Your task to perform on an android device: search for starred emails in the gmail app Image 0: 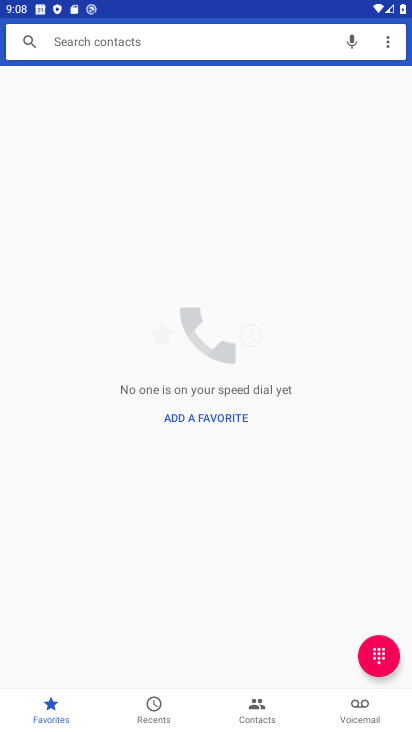
Step 0: drag from (252, 535) to (268, 260)
Your task to perform on an android device: search for starred emails in the gmail app Image 1: 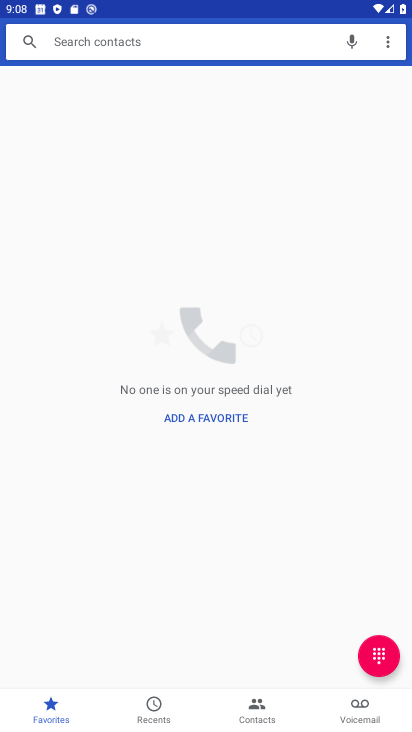
Step 1: press home button
Your task to perform on an android device: search for starred emails in the gmail app Image 2: 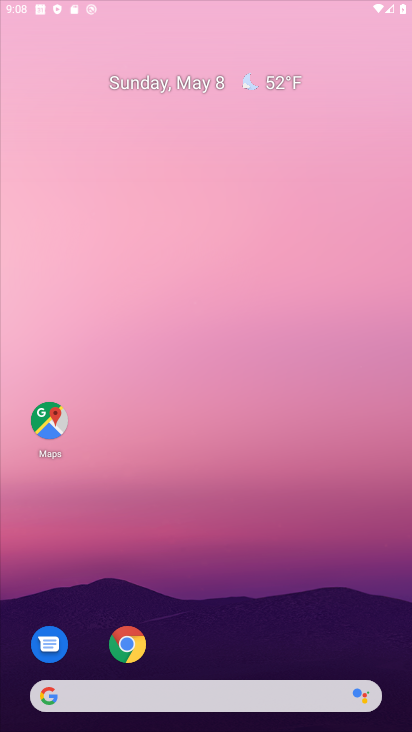
Step 2: drag from (192, 636) to (288, 221)
Your task to perform on an android device: search for starred emails in the gmail app Image 3: 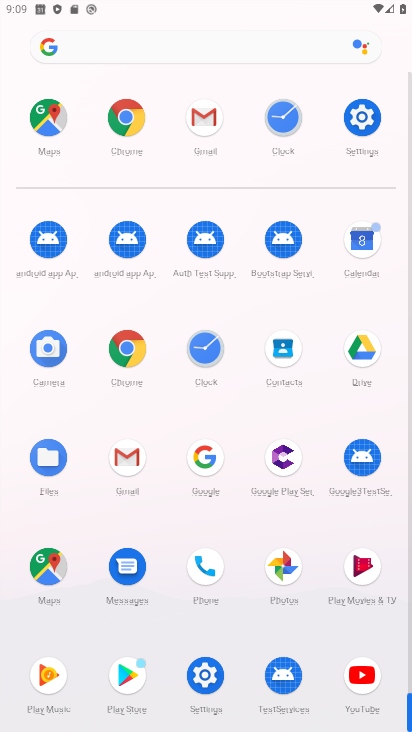
Step 3: click (126, 459)
Your task to perform on an android device: search for starred emails in the gmail app Image 4: 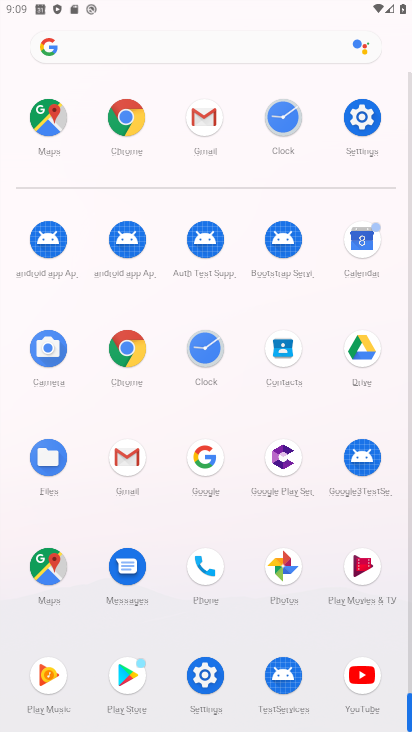
Step 4: click (126, 459)
Your task to perform on an android device: search for starred emails in the gmail app Image 5: 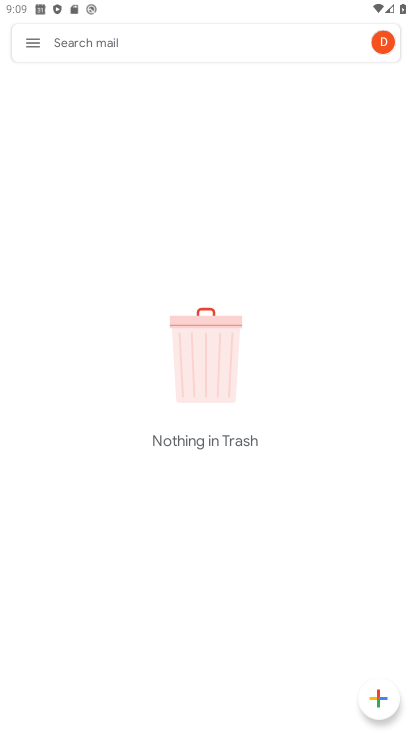
Step 5: drag from (185, 443) to (232, 105)
Your task to perform on an android device: search for starred emails in the gmail app Image 6: 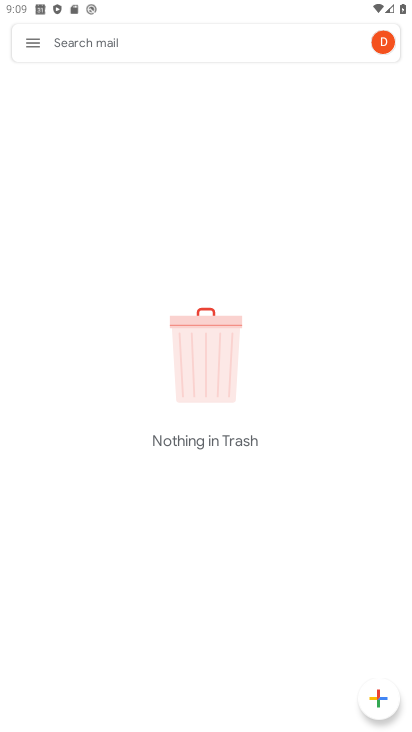
Step 6: click (23, 42)
Your task to perform on an android device: search for starred emails in the gmail app Image 7: 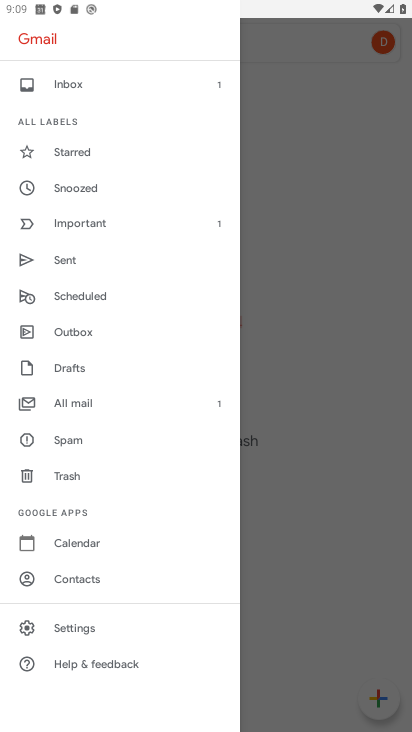
Step 7: click (80, 152)
Your task to perform on an android device: search for starred emails in the gmail app Image 8: 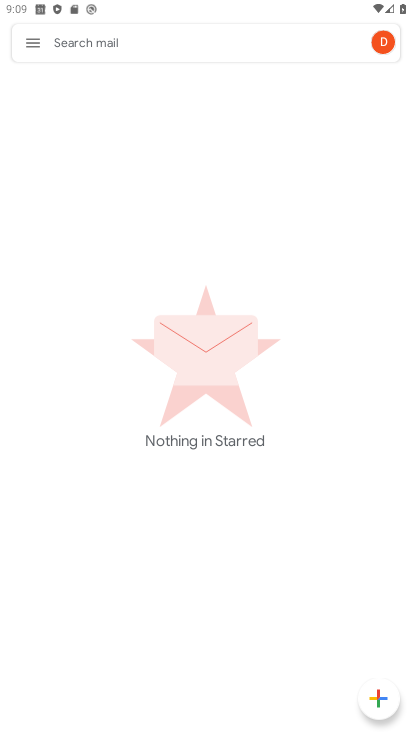
Step 8: click (27, 37)
Your task to perform on an android device: search for starred emails in the gmail app Image 9: 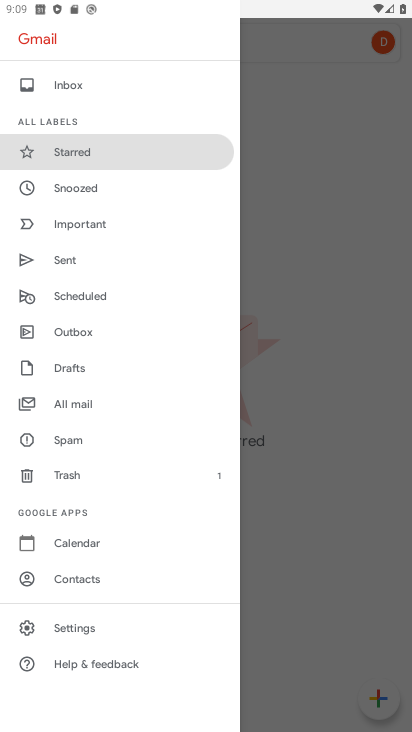
Step 9: click (55, 155)
Your task to perform on an android device: search for starred emails in the gmail app Image 10: 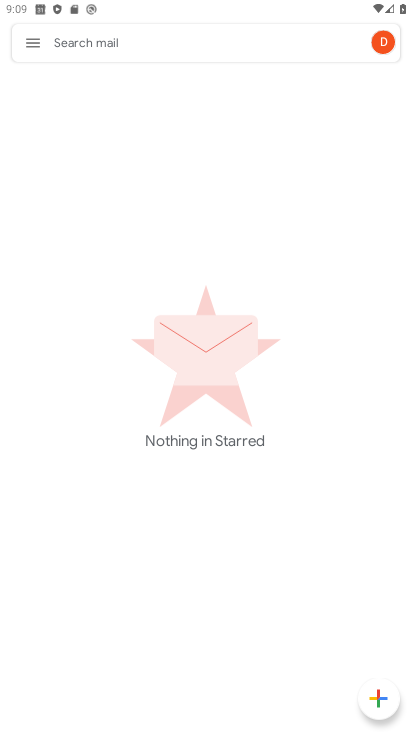
Step 10: click (18, 36)
Your task to perform on an android device: search for starred emails in the gmail app Image 11: 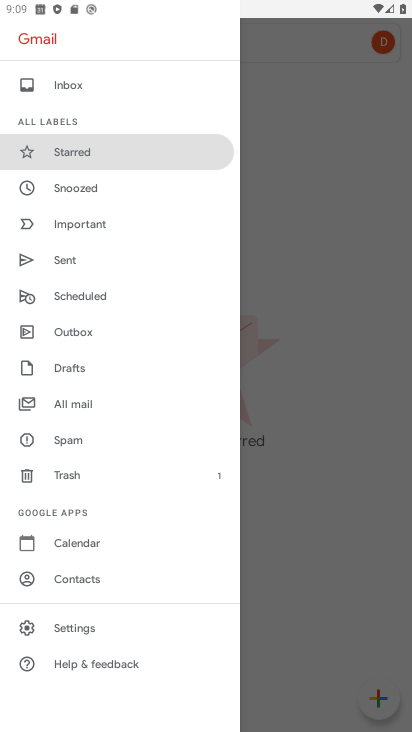
Step 11: click (91, 154)
Your task to perform on an android device: search for starred emails in the gmail app Image 12: 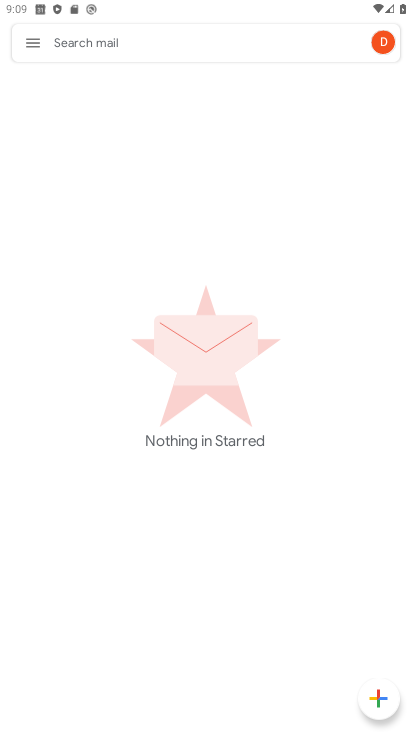
Step 12: task complete